Your task to perform on an android device: Play the last video I watched on Youtube Image 0: 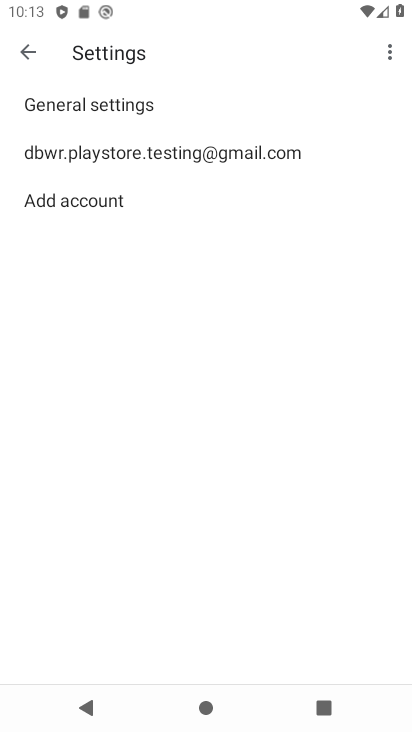
Step 0: press home button
Your task to perform on an android device: Play the last video I watched on Youtube Image 1: 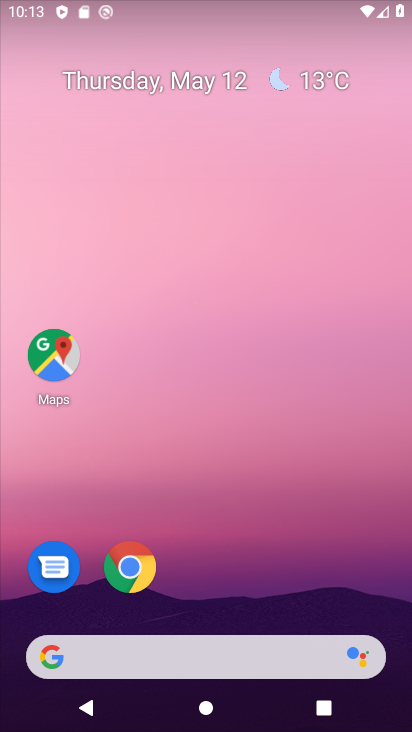
Step 1: drag from (275, 581) to (277, 233)
Your task to perform on an android device: Play the last video I watched on Youtube Image 2: 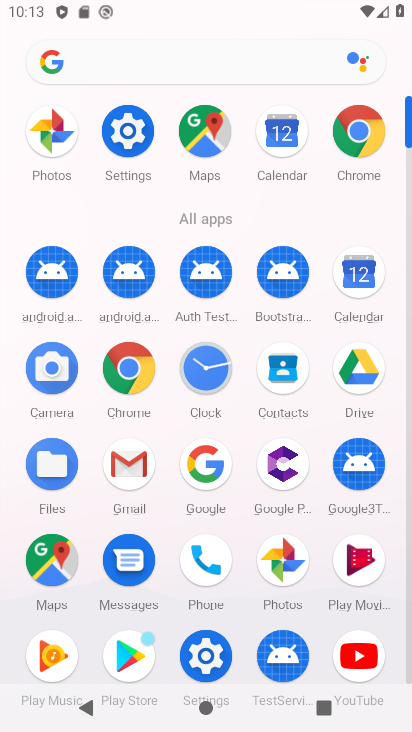
Step 2: drag from (318, 590) to (325, 241)
Your task to perform on an android device: Play the last video I watched on Youtube Image 3: 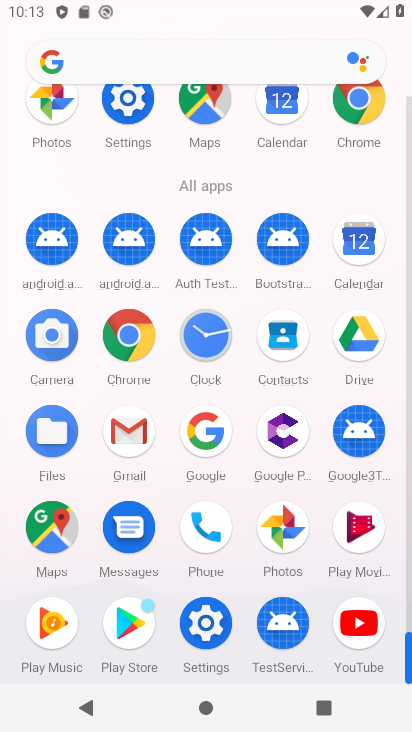
Step 3: click (366, 636)
Your task to perform on an android device: Play the last video I watched on Youtube Image 4: 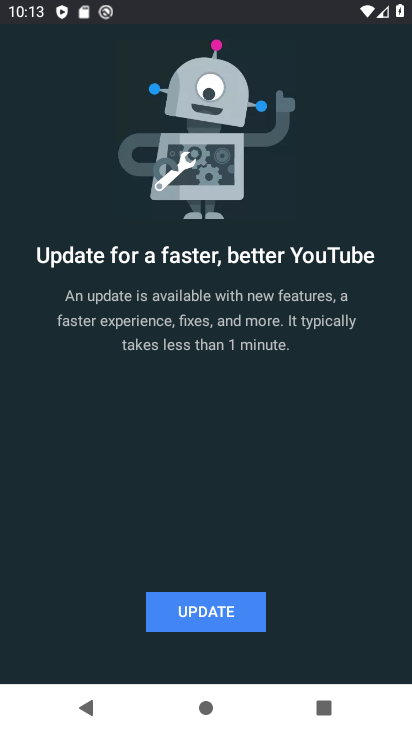
Step 4: click (245, 609)
Your task to perform on an android device: Play the last video I watched on Youtube Image 5: 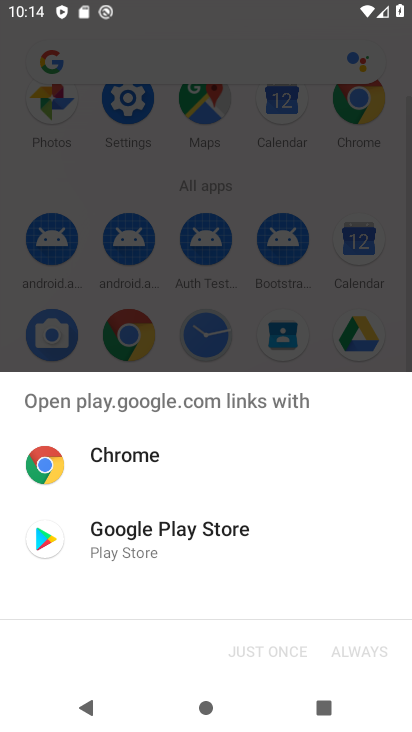
Step 5: click (170, 550)
Your task to perform on an android device: Play the last video I watched on Youtube Image 6: 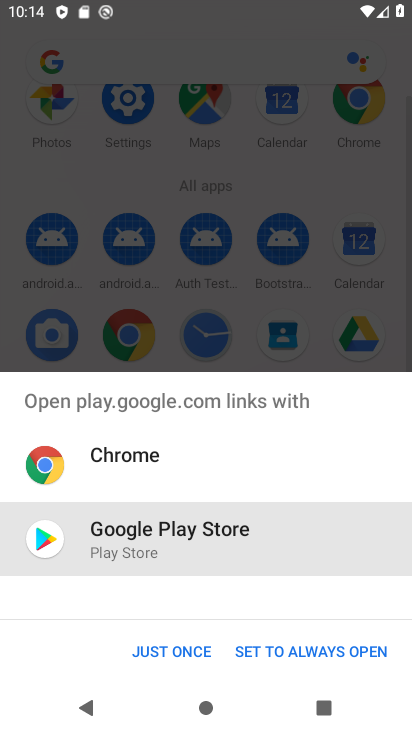
Step 6: click (190, 660)
Your task to perform on an android device: Play the last video I watched on Youtube Image 7: 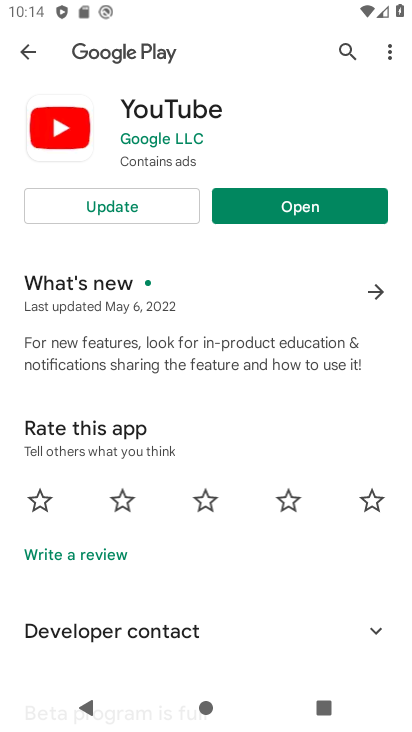
Step 7: click (91, 199)
Your task to perform on an android device: Play the last video I watched on Youtube Image 8: 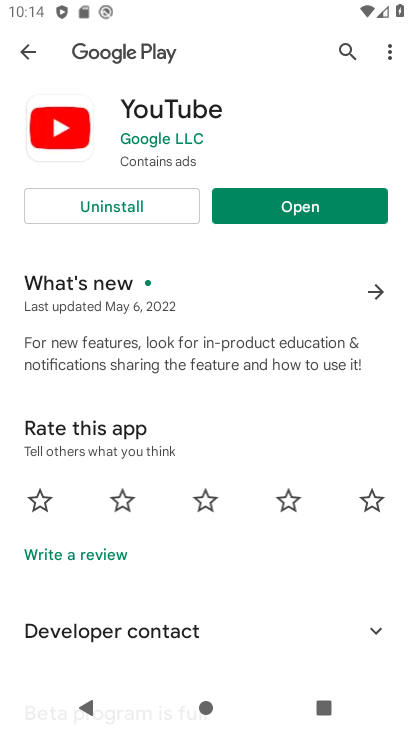
Step 8: click (289, 198)
Your task to perform on an android device: Play the last video I watched on Youtube Image 9: 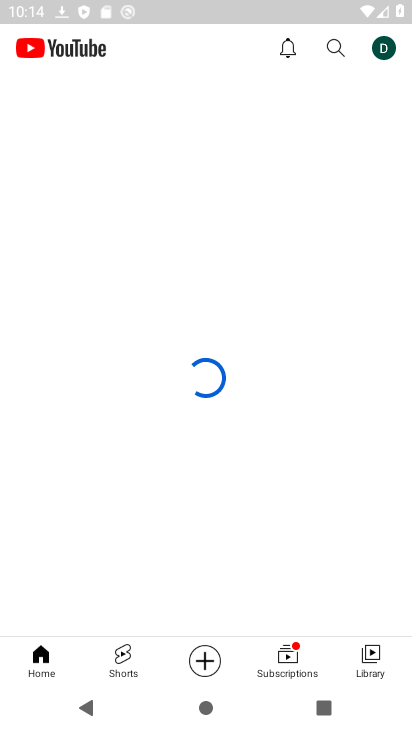
Step 9: click (362, 659)
Your task to perform on an android device: Play the last video I watched on Youtube Image 10: 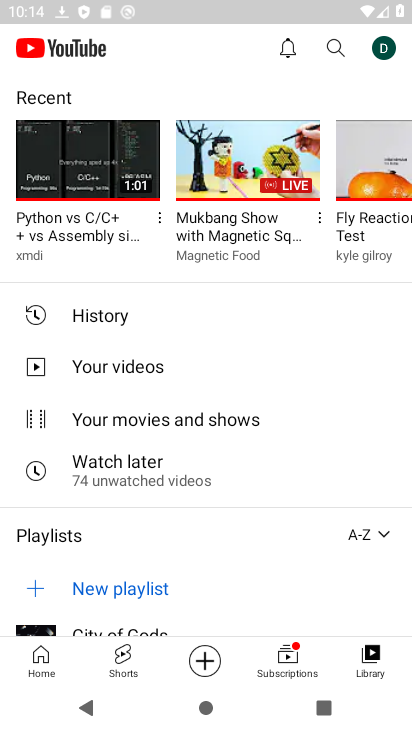
Step 10: click (378, 646)
Your task to perform on an android device: Play the last video I watched on Youtube Image 11: 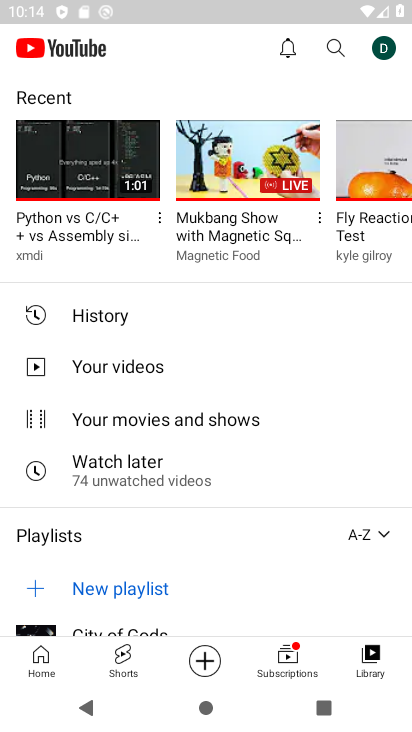
Step 11: click (104, 182)
Your task to perform on an android device: Play the last video I watched on Youtube Image 12: 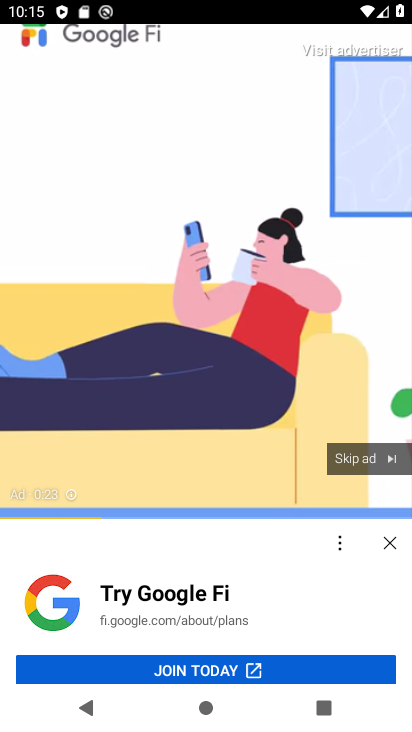
Step 12: click (370, 463)
Your task to perform on an android device: Play the last video I watched on Youtube Image 13: 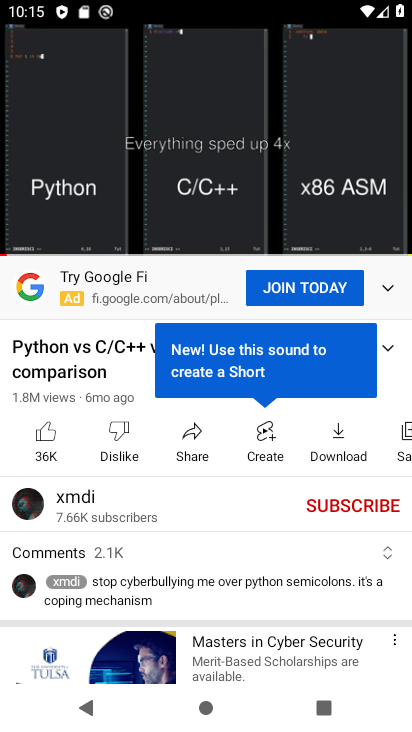
Step 13: task complete